Your task to perform on an android device: change text size in settings app Image 0: 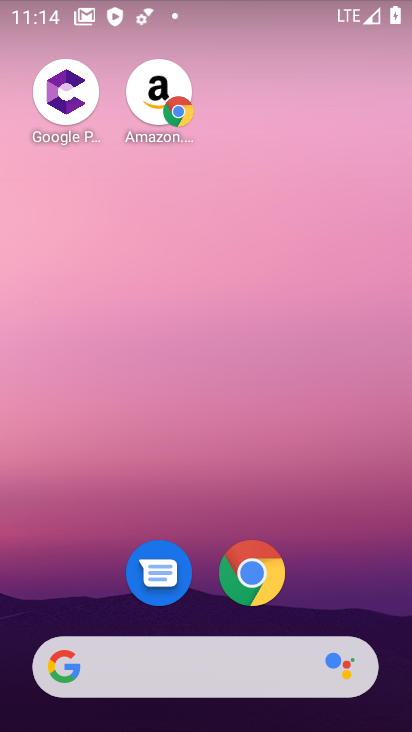
Step 0: drag from (323, 594) to (88, 0)
Your task to perform on an android device: change text size in settings app Image 1: 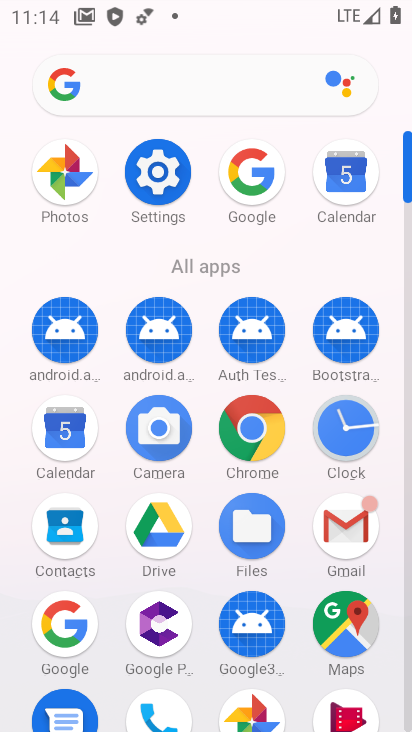
Step 1: click (158, 170)
Your task to perform on an android device: change text size in settings app Image 2: 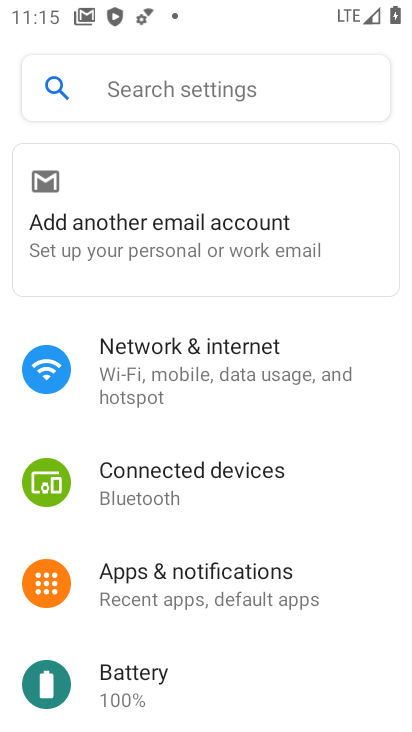
Step 2: drag from (158, 632) to (224, 414)
Your task to perform on an android device: change text size in settings app Image 3: 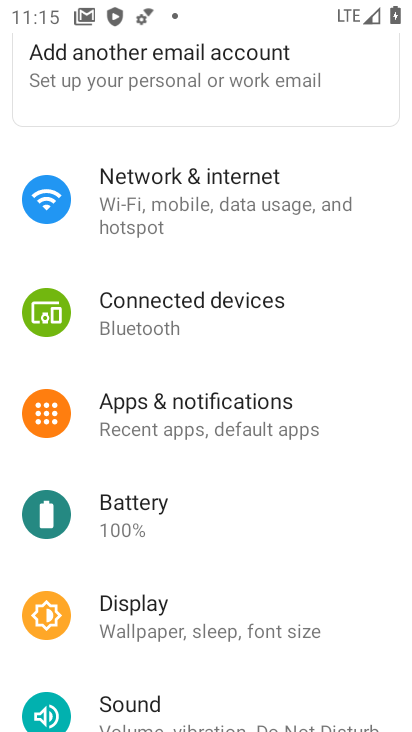
Step 3: drag from (196, 547) to (217, 410)
Your task to perform on an android device: change text size in settings app Image 4: 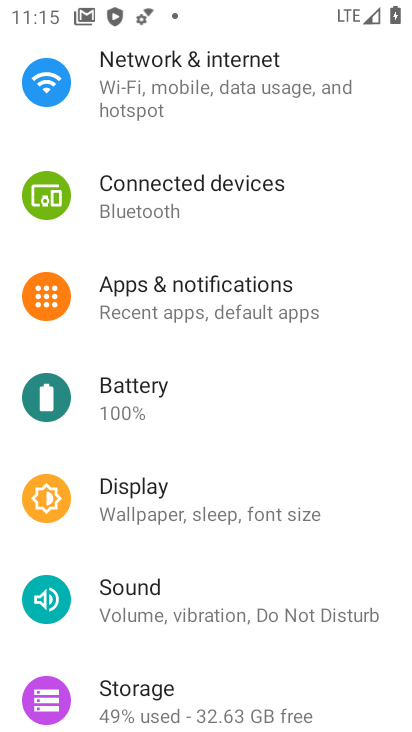
Step 4: drag from (159, 577) to (231, 471)
Your task to perform on an android device: change text size in settings app Image 5: 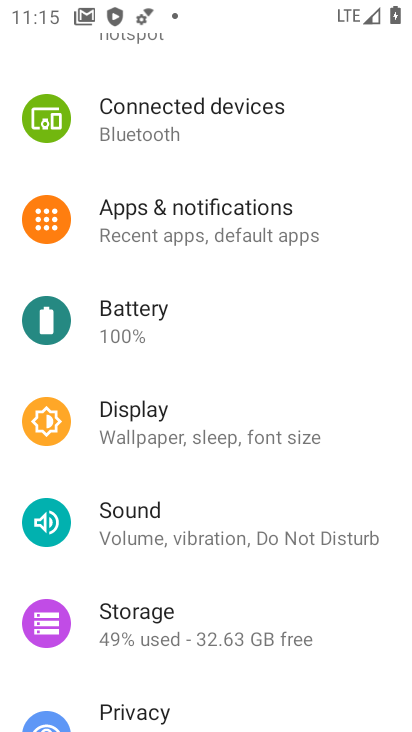
Step 5: drag from (187, 590) to (280, 436)
Your task to perform on an android device: change text size in settings app Image 6: 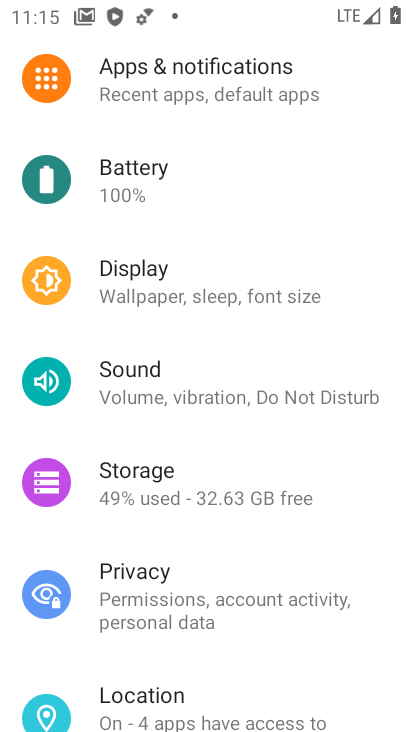
Step 6: drag from (175, 639) to (222, 525)
Your task to perform on an android device: change text size in settings app Image 7: 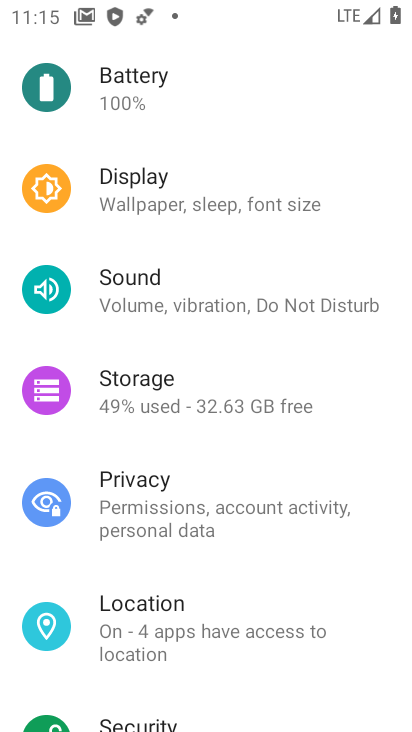
Step 7: drag from (166, 664) to (256, 538)
Your task to perform on an android device: change text size in settings app Image 8: 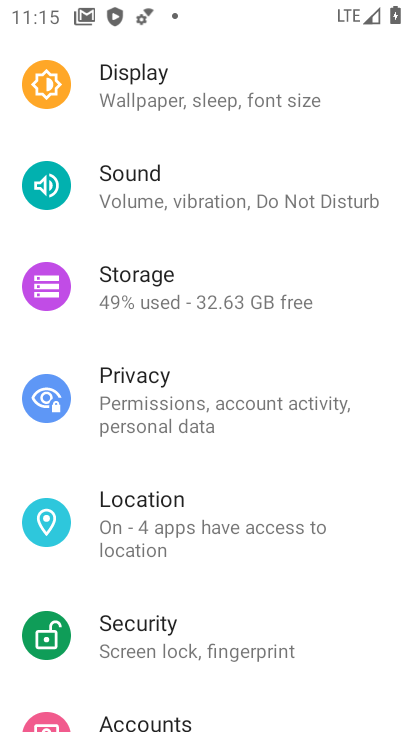
Step 8: drag from (176, 702) to (279, 573)
Your task to perform on an android device: change text size in settings app Image 9: 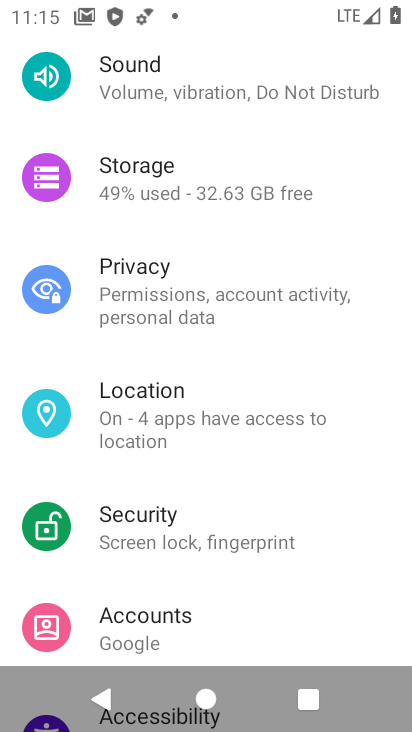
Step 9: drag from (216, 639) to (293, 505)
Your task to perform on an android device: change text size in settings app Image 10: 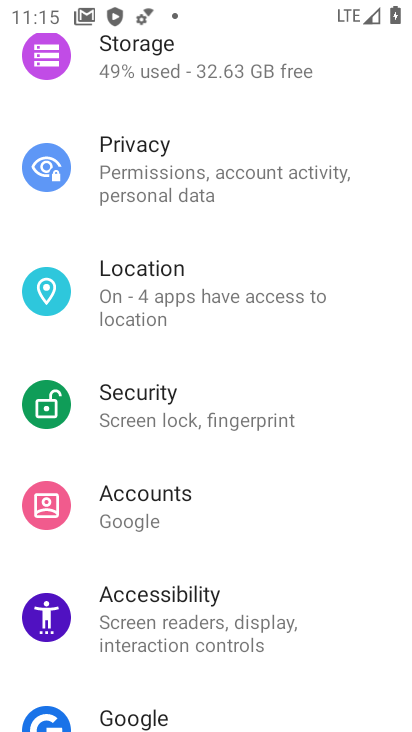
Step 10: drag from (168, 655) to (238, 572)
Your task to perform on an android device: change text size in settings app Image 11: 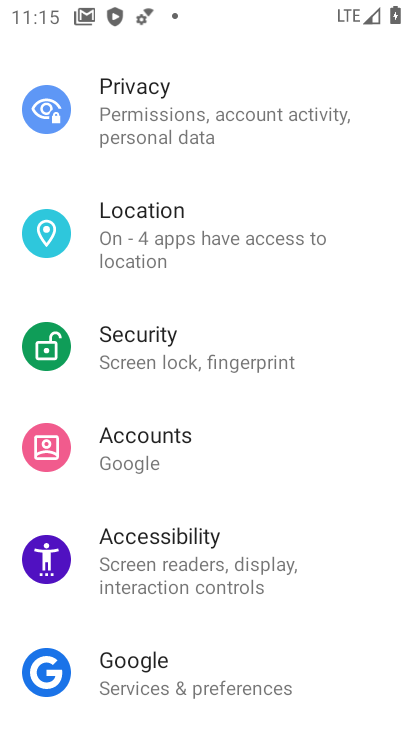
Step 11: click (126, 537)
Your task to perform on an android device: change text size in settings app Image 12: 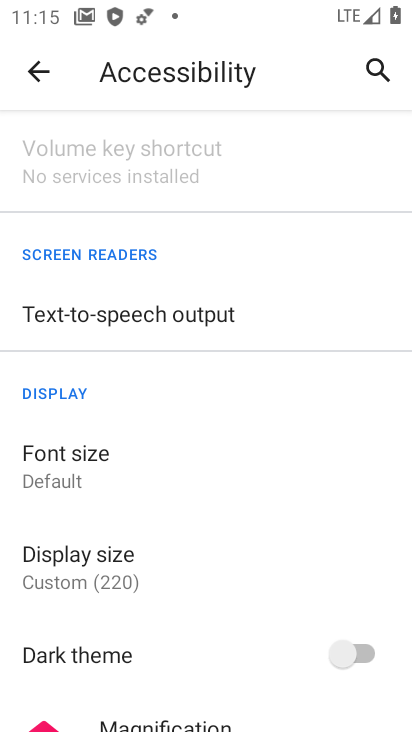
Step 12: click (72, 461)
Your task to perform on an android device: change text size in settings app Image 13: 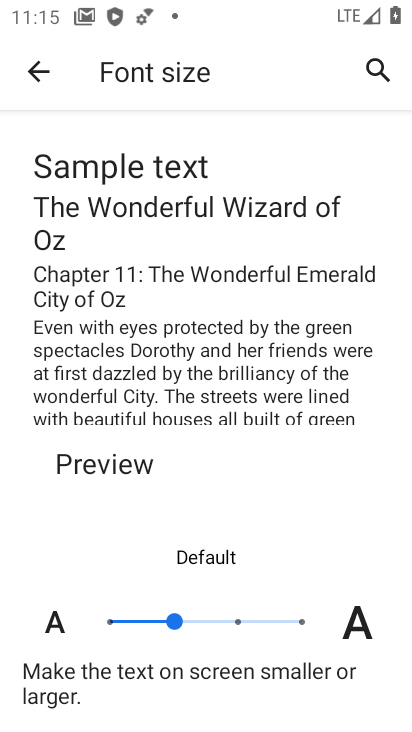
Step 13: click (238, 613)
Your task to perform on an android device: change text size in settings app Image 14: 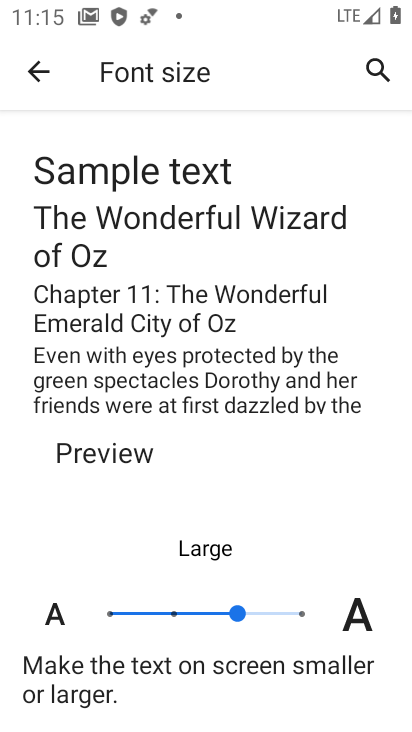
Step 14: task complete